Your task to perform on an android device: toggle location history Image 0: 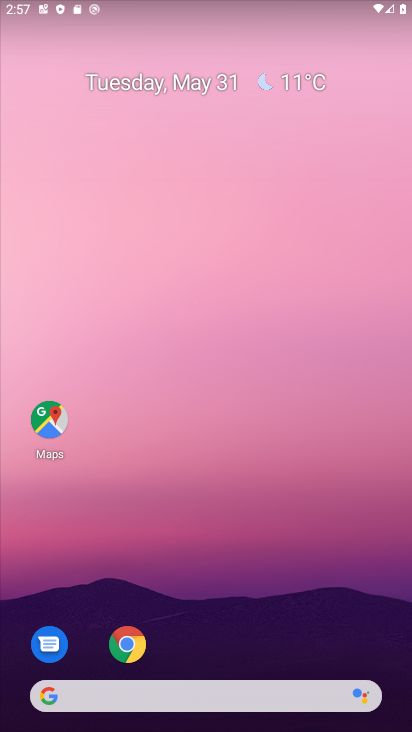
Step 0: drag from (245, 526) to (295, 97)
Your task to perform on an android device: toggle location history Image 1: 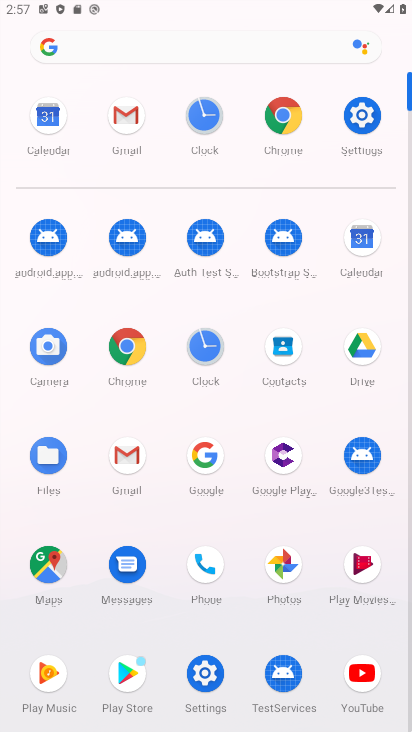
Step 1: click (363, 113)
Your task to perform on an android device: toggle location history Image 2: 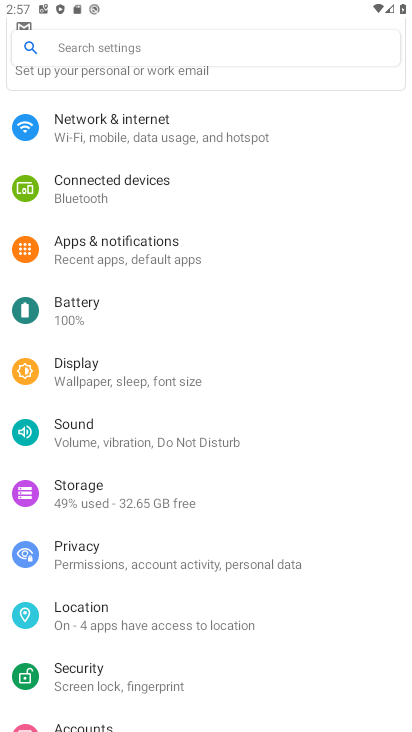
Step 2: click (76, 618)
Your task to perform on an android device: toggle location history Image 3: 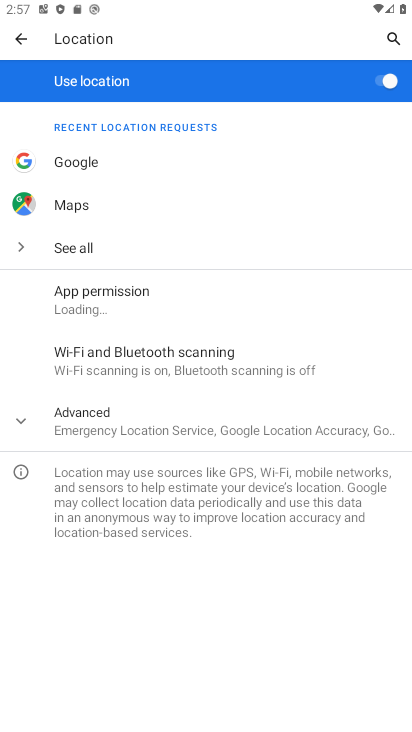
Step 3: click (35, 429)
Your task to perform on an android device: toggle location history Image 4: 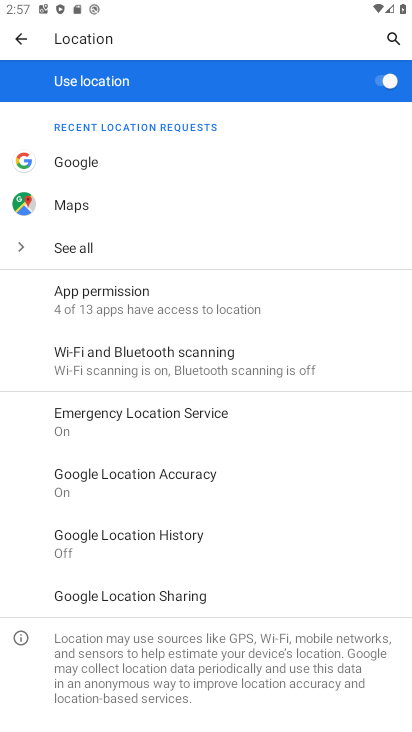
Step 4: click (108, 538)
Your task to perform on an android device: toggle location history Image 5: 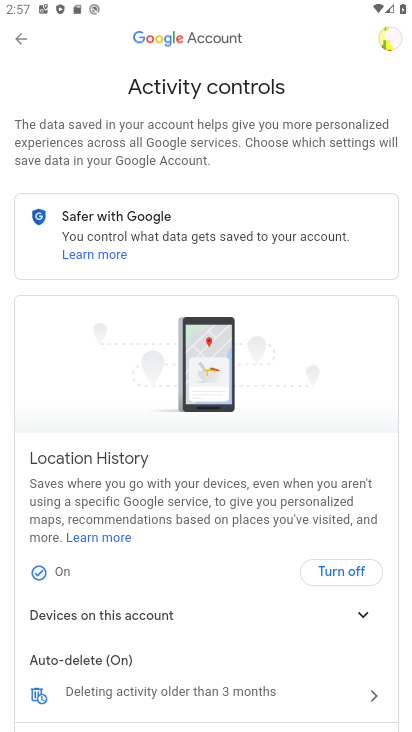
Step 5: click (350, 574)
Your task to perform on an android device: toggle location history Image 6: 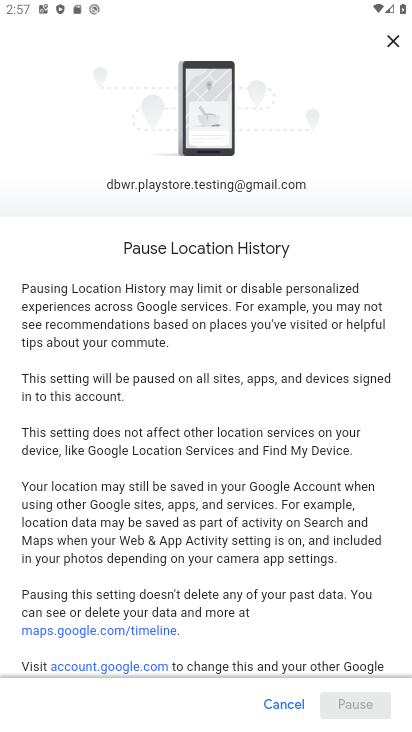
Step 6: task complete